Your task to perform on an android device: Open Google Image 0: 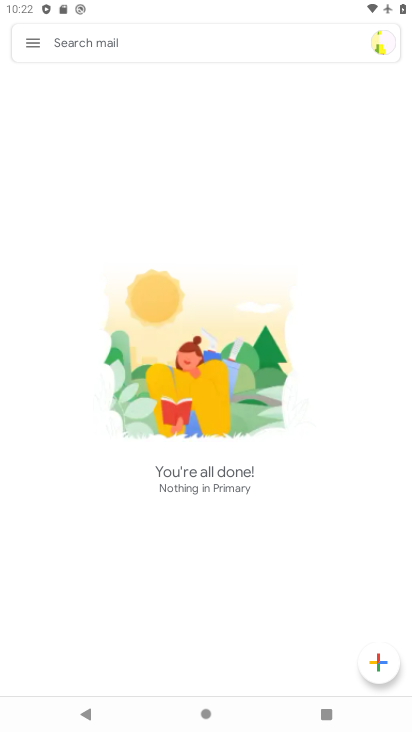
Step 0: press home button
Your task to perform on an android device: Open Google Image 1: 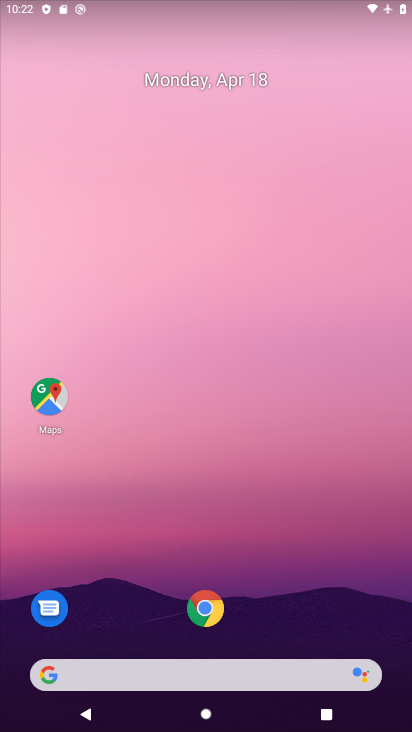
Step 1: drag from (231, 479) to (250, 181)
Your task to perform on an android device: Open Google Image 2: 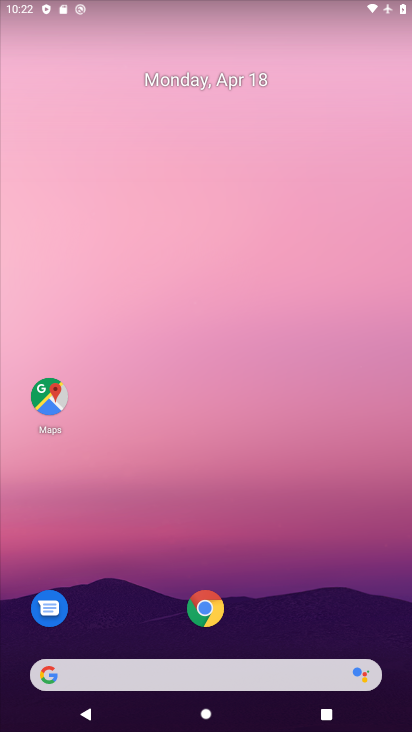
Step 2: drag from (264, 612) to (260, 114)
Your task to perform on an android device: Open Google Image 3: 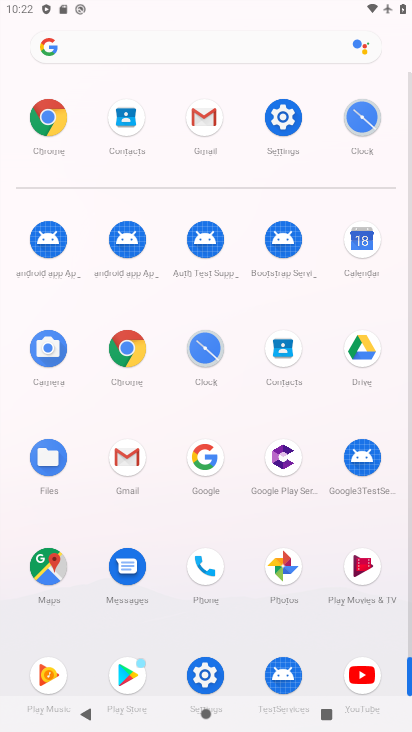
Step 3: click (205, 470)
Your task to perform on an android device: Open Google Image 4: 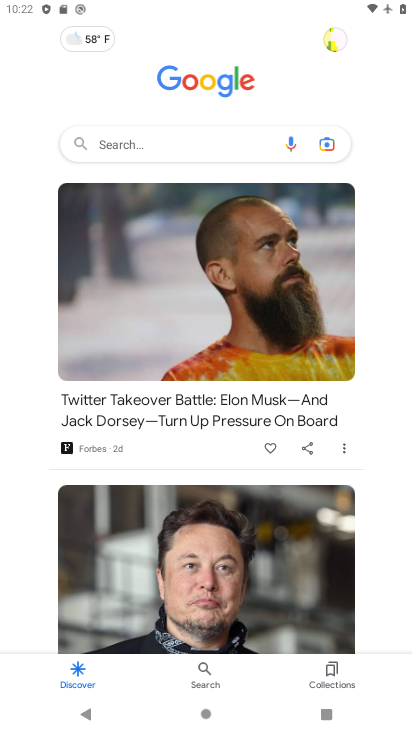
Step 4: task complete